Your task to perform on an android device: Open CNN.com Image 0: 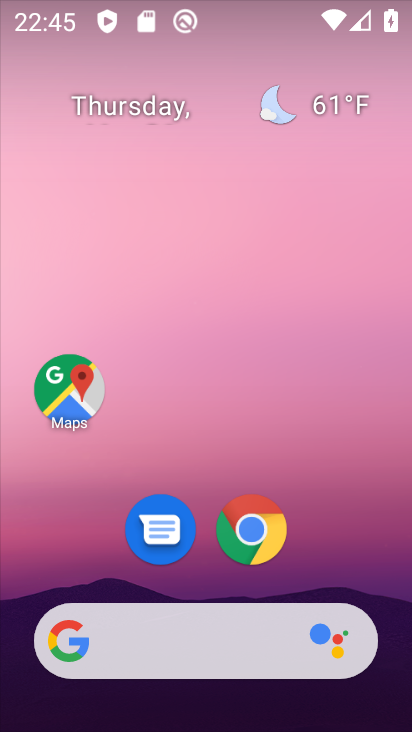
Step 0: drag from (388, 558) to (360, 89)
Your task to perform on an android device: Open CNN.com Image 1: 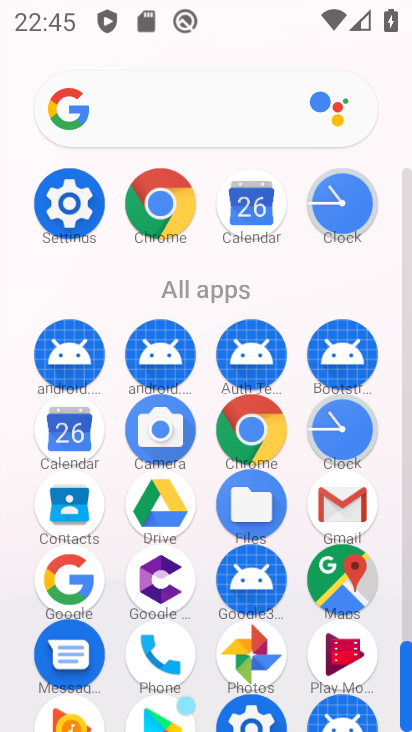
Step 1: click (223, 109)
Your task to perform on an android device: Open CNN.com Image 2: 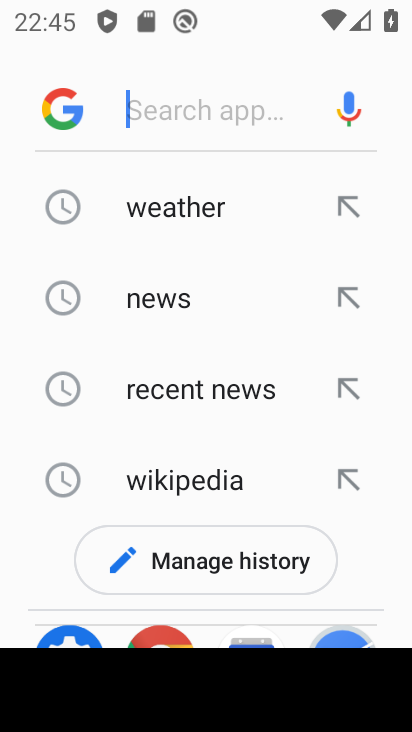
Step 2: type "cnn.com"
Your task to perform on an android device: Open CNN.com Image 3: 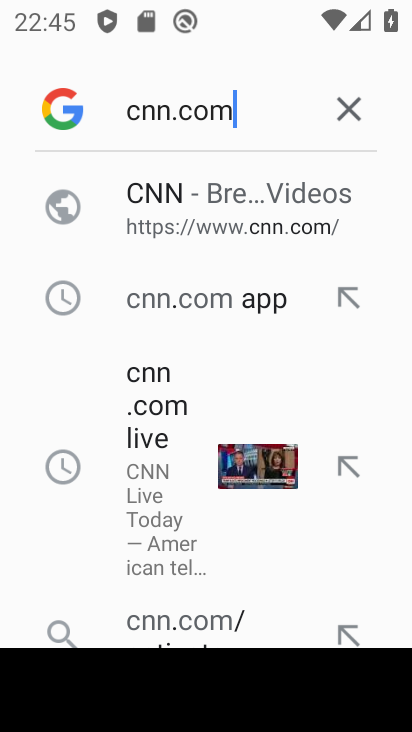
Step 3: click (264, 193)
Your task to perform on an android device: Open CNN.com Image 4: 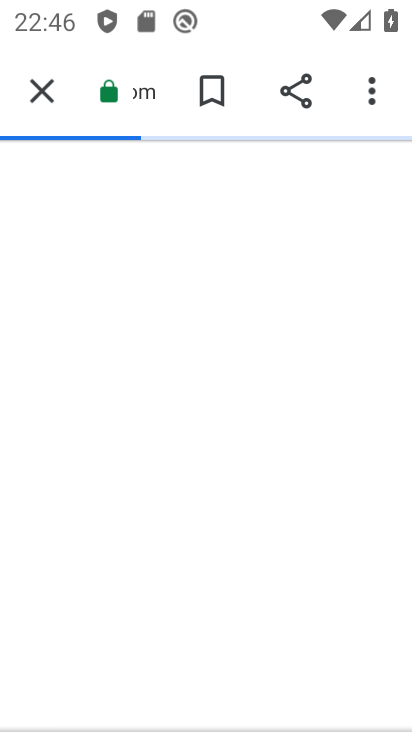
Step 4: task complete